Your task to perform on an android device: check the backup settings in the google photos Image 0: 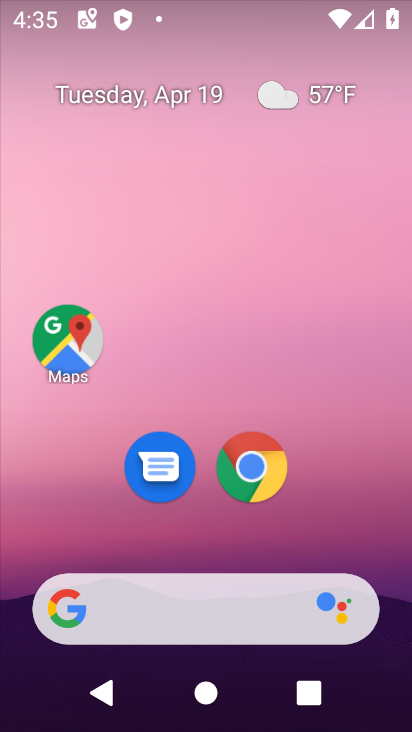
Step 0: drag from (285, 484) to (300, 213)
Your task to perform on an android device: check the backup settings in the google photos Image 1: 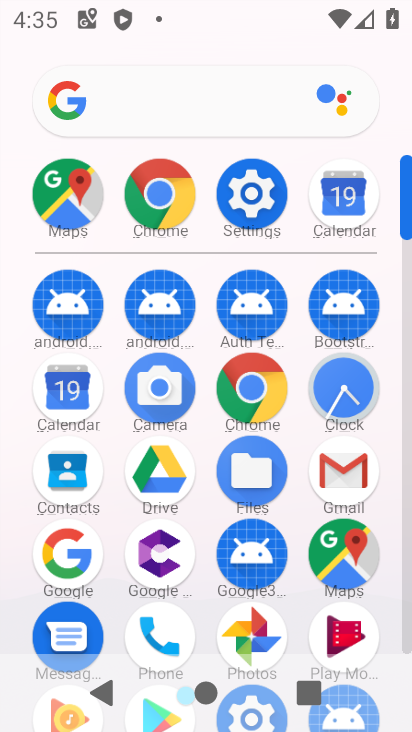
Step 1: click (271, 617)
Your task to perform on an android device: check the backup settings in the google photos Image 2: 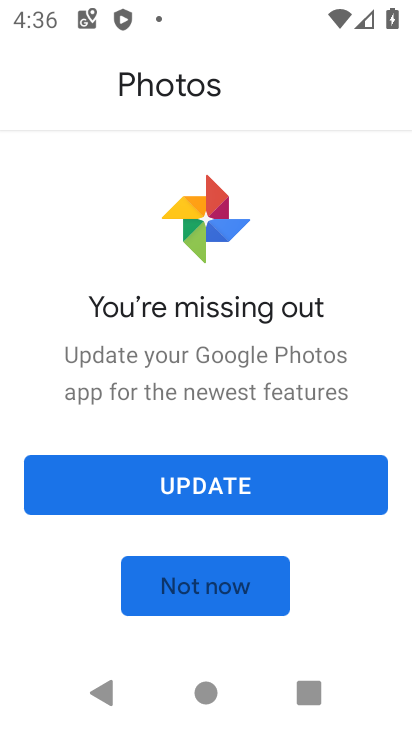
Step 2: click (219, 585)
Your task to perform on an android device: check the backup settings in the google photos Image 3: 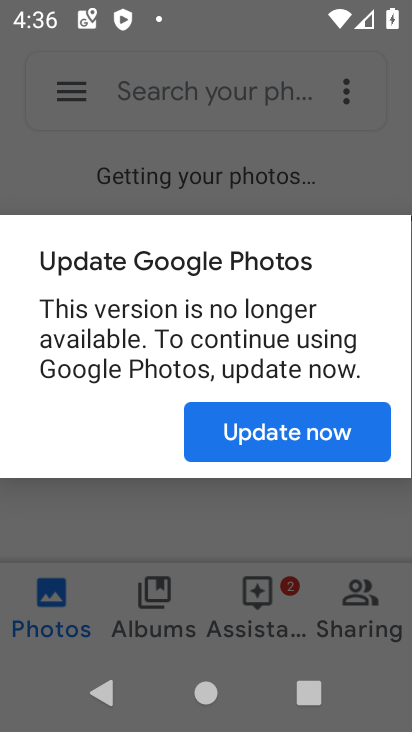
Step 3: task complete